Your task to perform on an android device: turn on sleep mode Image 0: 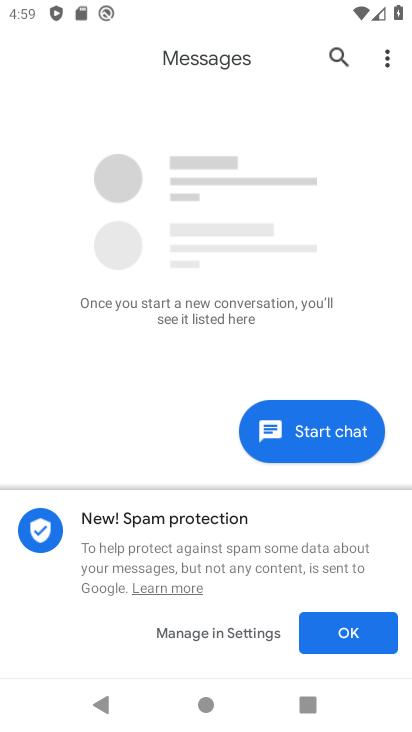
Step 0: press home button
Your task to perform on an android device: turn on sleep mode Image 1: 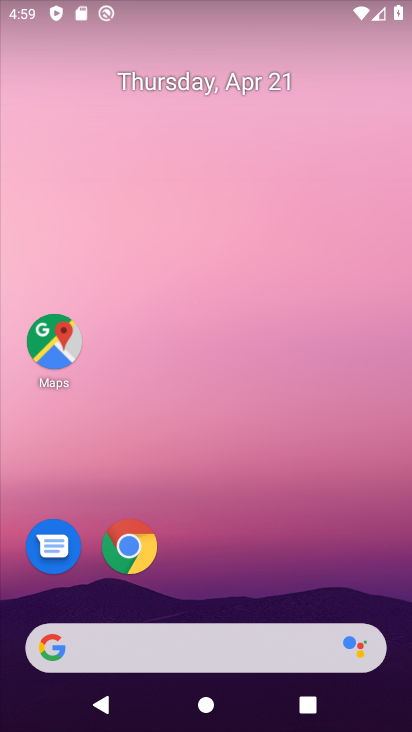
Step 1: drag from (249, 566) to (241, 110)
Your task to perform on an android device: turn on sleep mode Image 2: 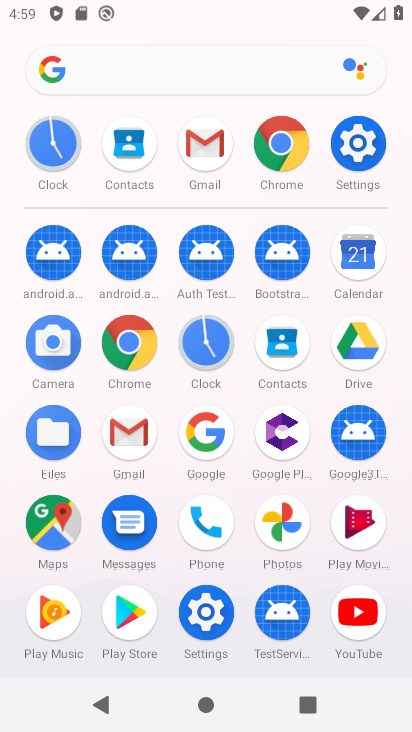
Step 2: click (352, 147)
Your task to perform on an android device: turn on sleep mode Image 3: 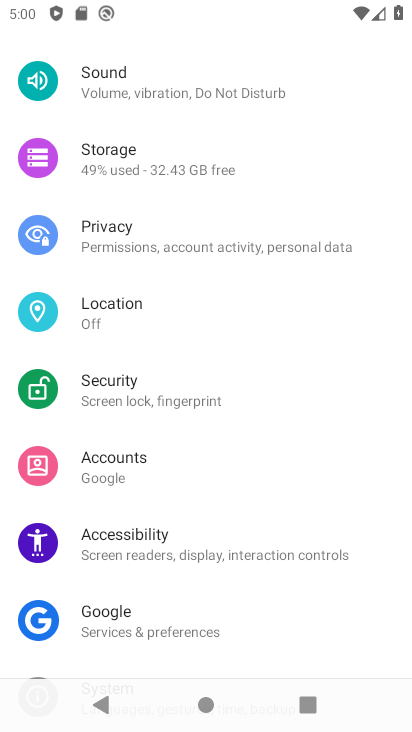
Step 3: drag from (241, 314) to (209, 600)
Your task to perform on an android device: turn on sleep mode Image 4: 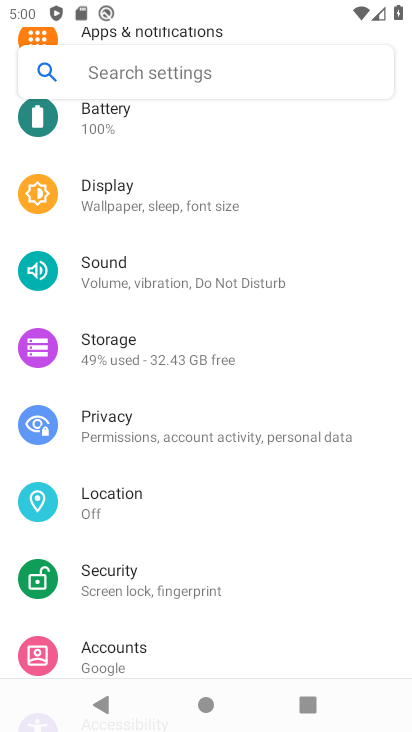
Step 4: click (216, 573)
Your task to perform on an android device: turn on sleep mode Image 5: 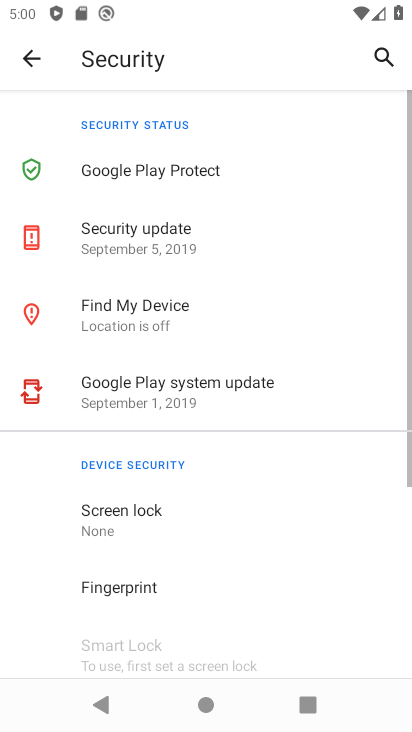
Step 5: click (22, 51)
Your task to perform on an android device: turn on sleep mode Image 6: 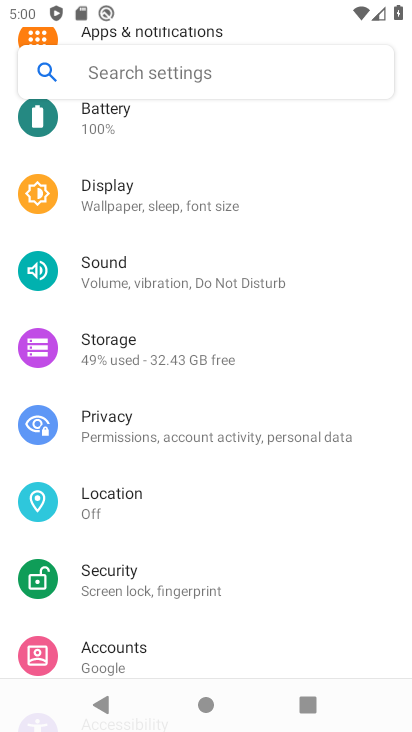
Step 6: click (161, 206)
Your task to perform on an android device: turn on sleep mode Image 7: 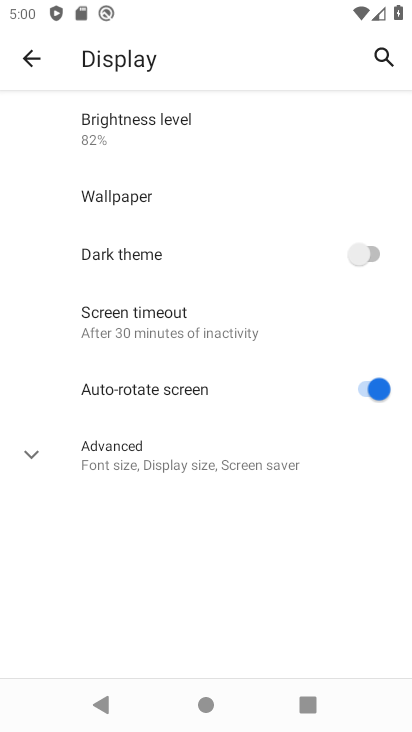
Step 7: click (189, 464)
Your task to perform on an android device: turn on sleep mode Image 8: 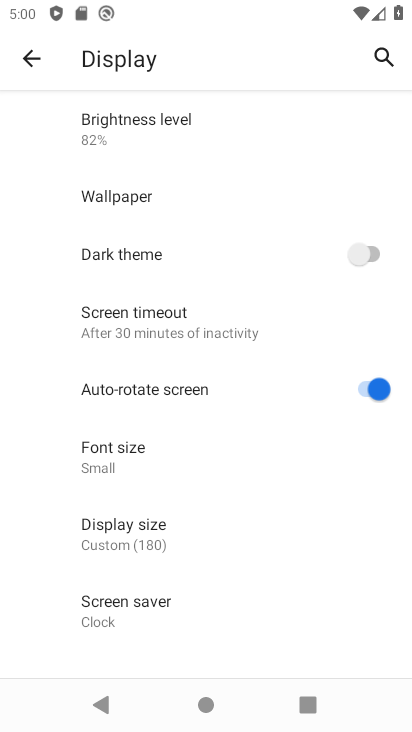
Step 8: task complete